Your task to perform on an android device: change notifications settings Image 0: 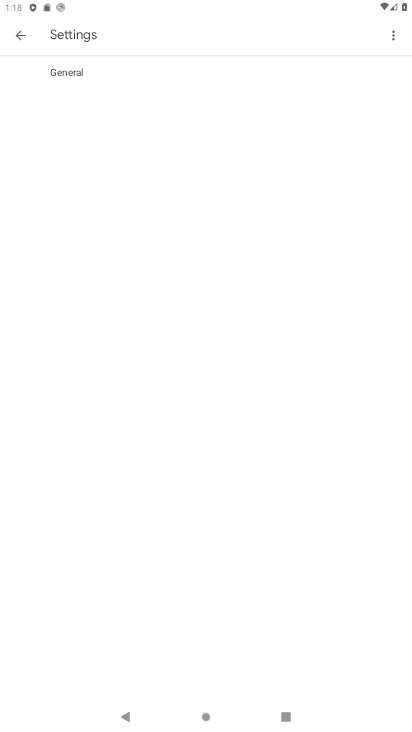
Step 0: press home button
Your task to perform on an android device: change notifications settings Image 1: 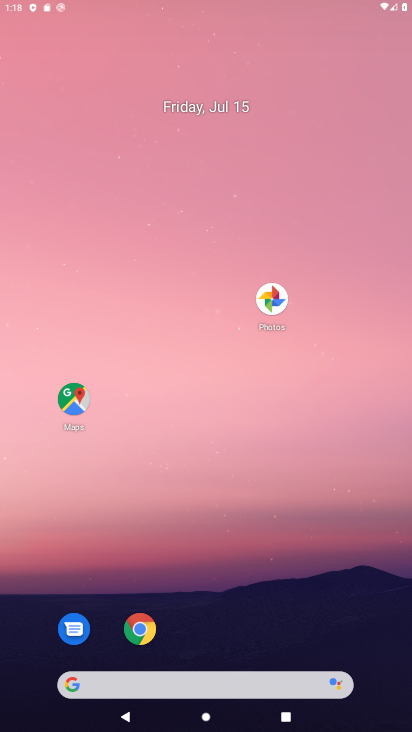
Step 1: drag from (207, 659) to (221, 269)
Your task to perform on an android device: change notifications settings Image 2: 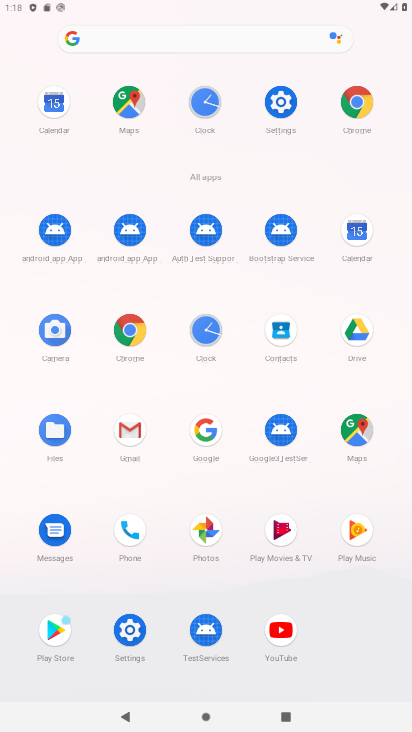
Step 2: click (287, 104)
Your task to perform on an android device: change notifications settings Image 3: 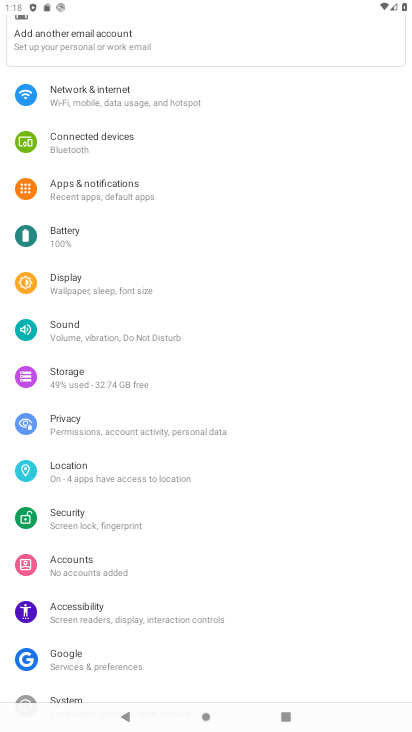
Step 3: click (128, 190)
Your task to perform on an android device: change notifications settings Image 4: 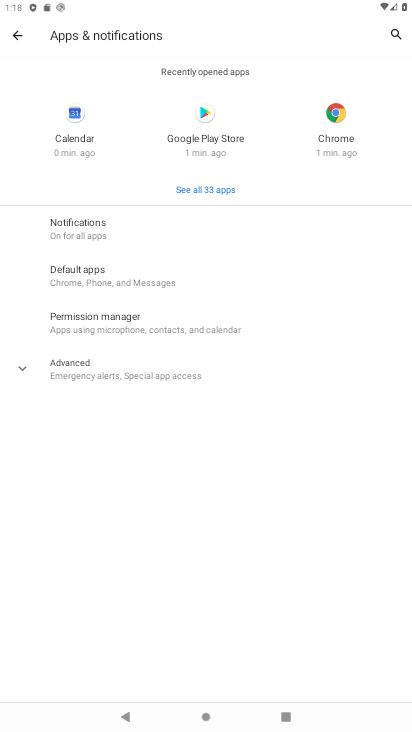
Step 4: click (84, 217)
Your task to perform on an android device: change notifications settings Image 5: 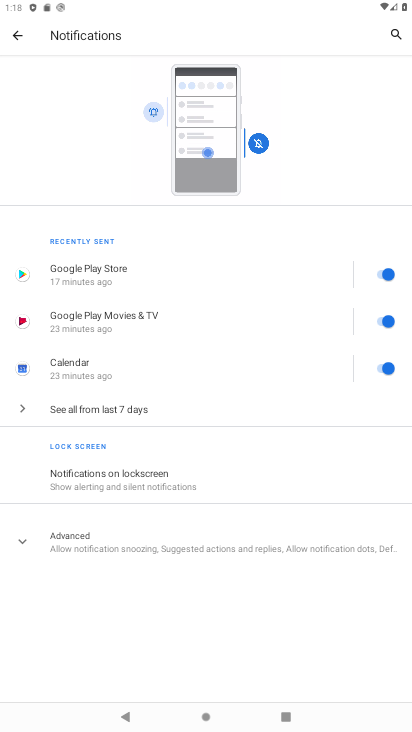
Step 5: click (120, 394)
Your task to perform on an android device: change notifications settings Image 6: 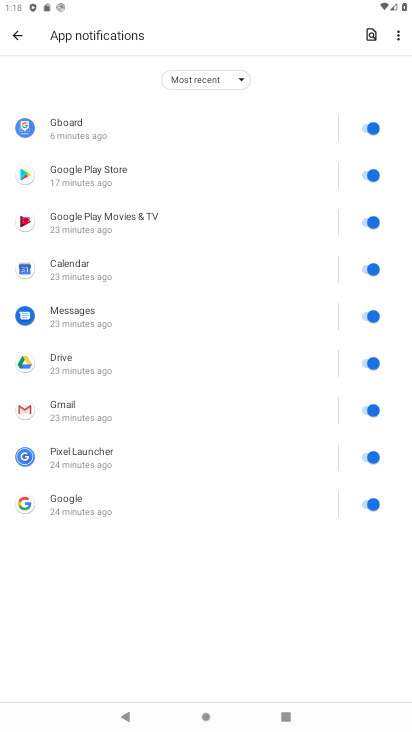
Step 6: click (371, 122)
Your task to perform on an android device: change notifications settings Image 7: 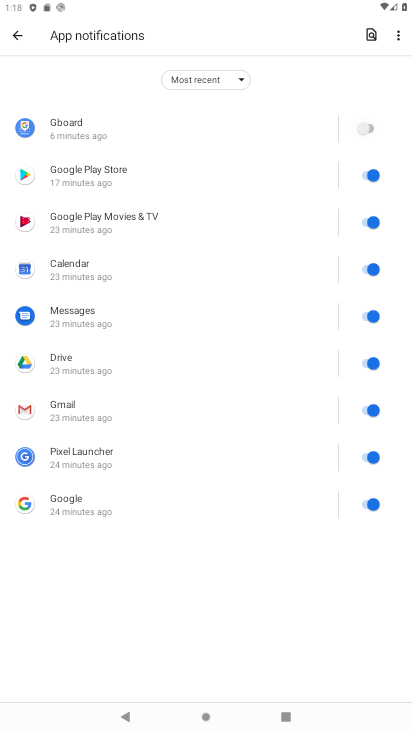
Step 7: click (371, 175)
Your task to perform on an android device: change notifications settings Image 8: 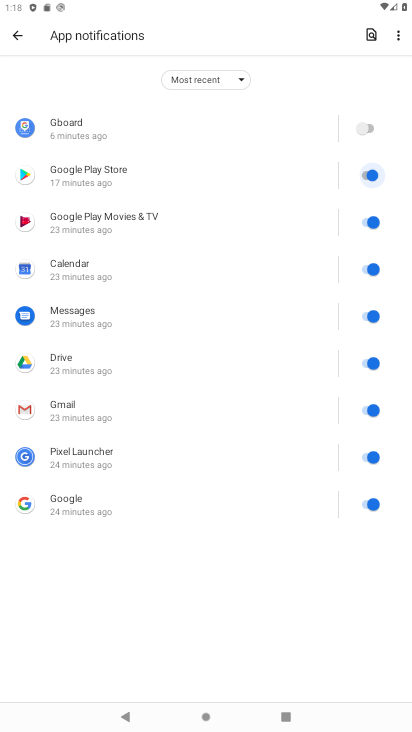
Step 8: click (367, 230)
Your task to perform on an android device: change notifications settings Image 9: 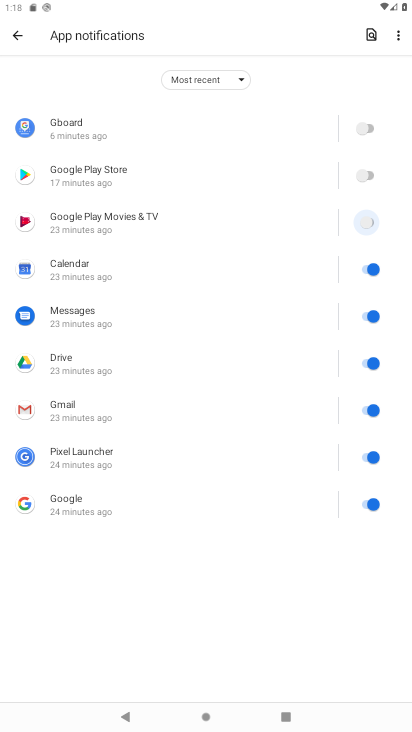
Step 9: click (365, 257)
Your task to perform on an android device: change notifications settings Image 10: 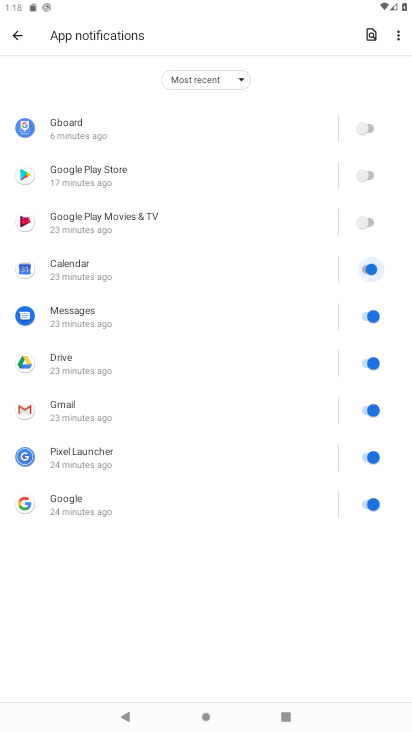
Step 10: click (358, 315)
Your task to perform on an android device: change notifications settings Image 11: 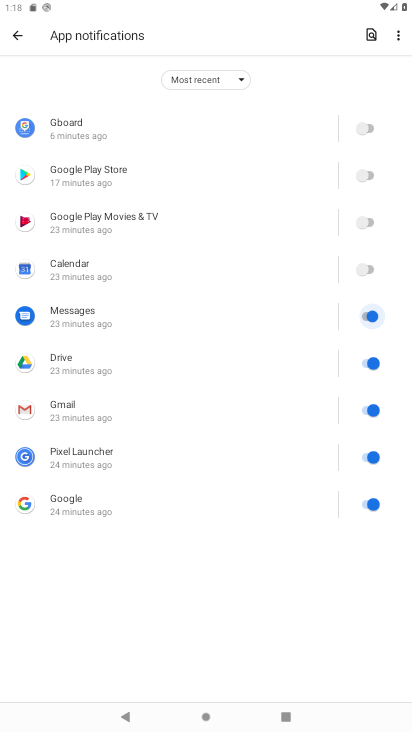
Step 11: click (362, 356)
Your task to perform on an android device: change notifications settings Image 12: 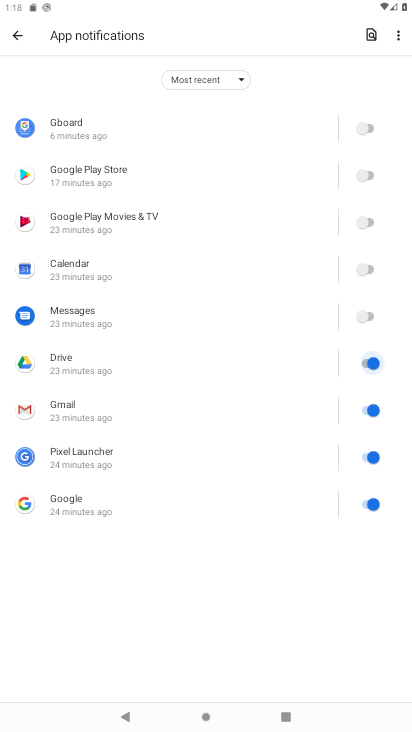
Step 12: click (364, 383)
Your task to perform on an android device: change notifications settings Image 13: 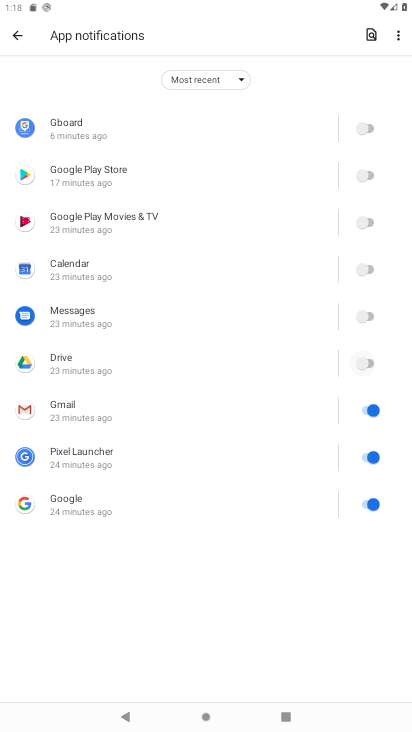
Step 13: click (358, 457)
Your task to perform on an android device: change notifications settings Image 14: 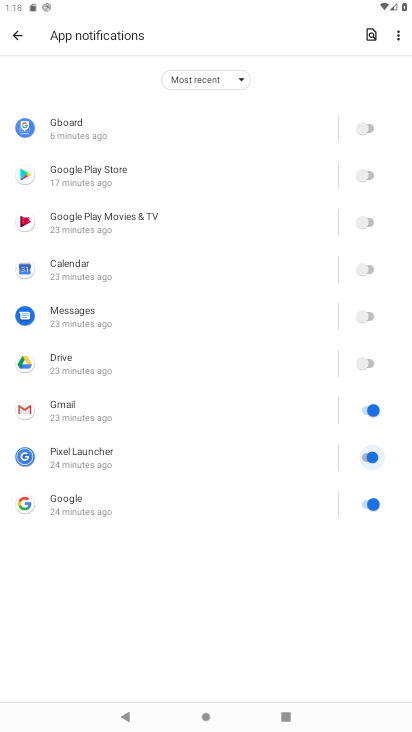
Step 14: click (372, 488)
Your task to perform on an android device: change notifications settings Image 15: 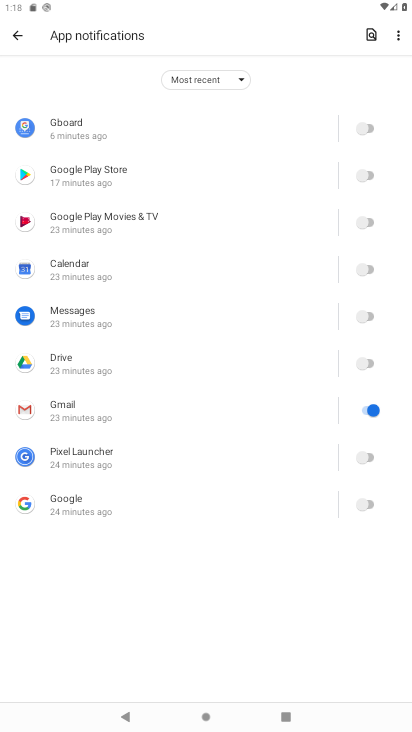
Step 15: click (372, 410)
Your task to perform on an android device: change notifications settings Image 16: 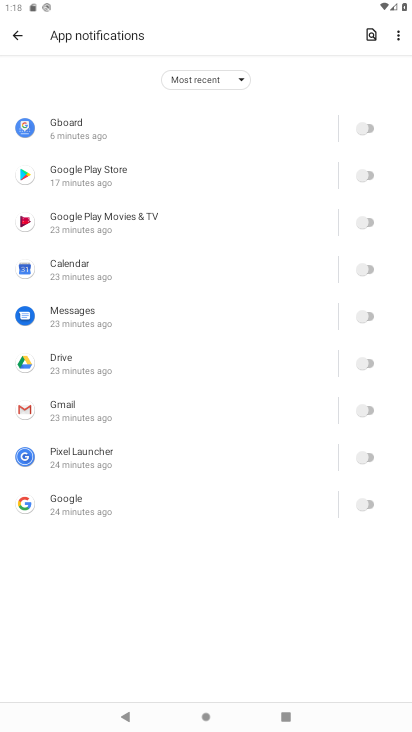
Step 16: task complete